Your task to perform on an android device: Open settings Image 0: 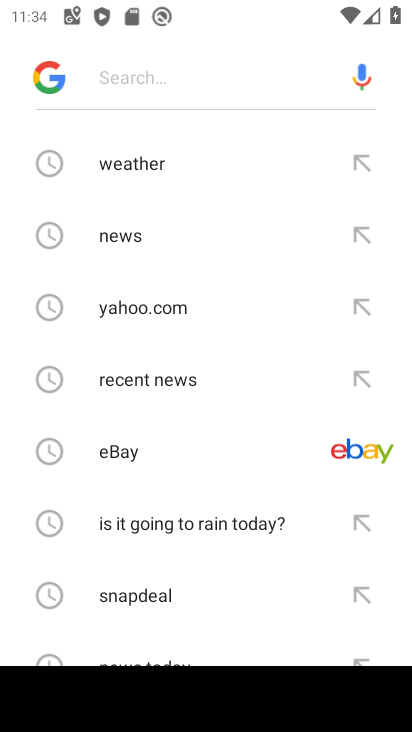
Step 0: press home button
Your task to perform on an android device: Open settings Image 1: 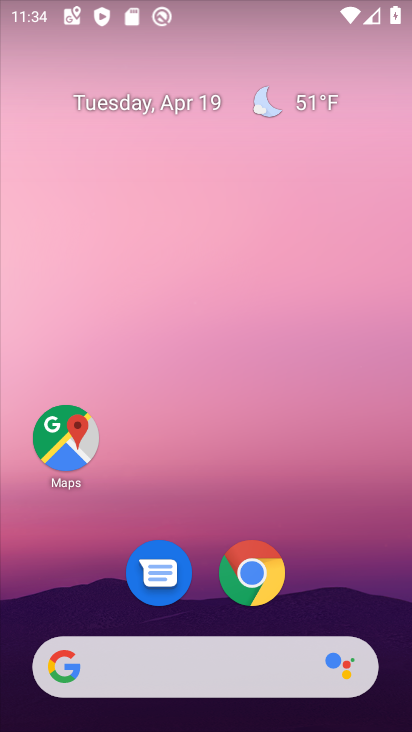
Step 1: drag from (331, 529) to (332, 95)
Your task to perform on an android device: Open settings Image 2: 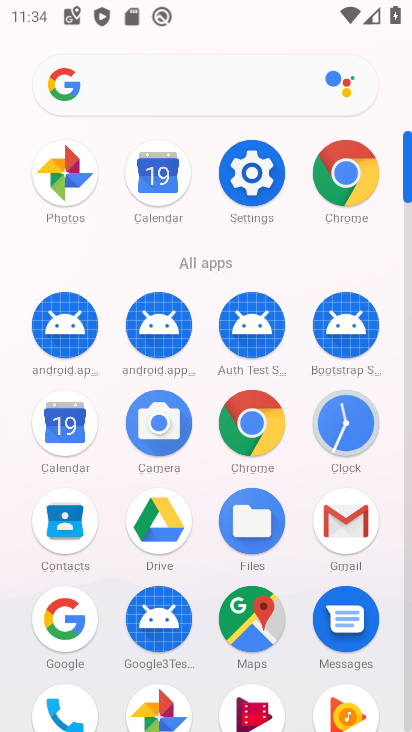
Step 2: click (263, 190)
Your task to perform on an android device: Open settings Image 3: 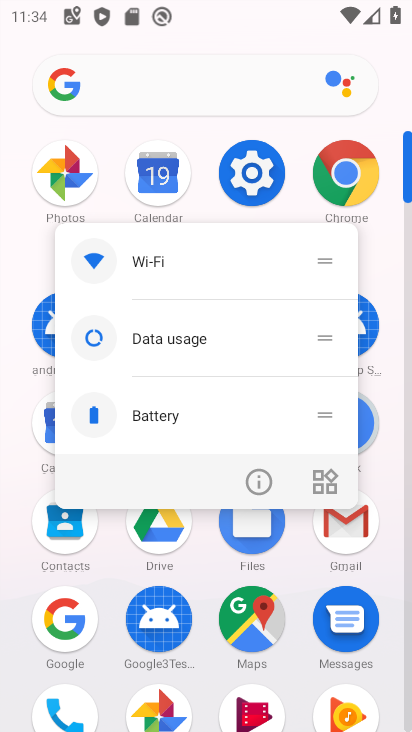
Step 3: click (271, 172)
Your task to perform on an android device: Open settings Image 4: 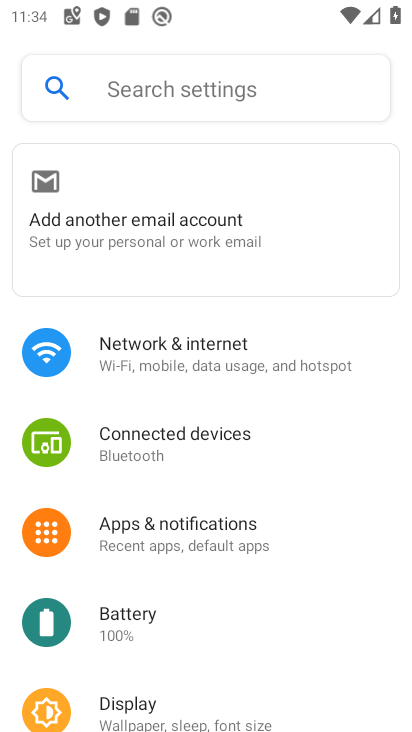
Step 4: task complete